Your task to perform on an android device: Open Reddit.com Image 0: 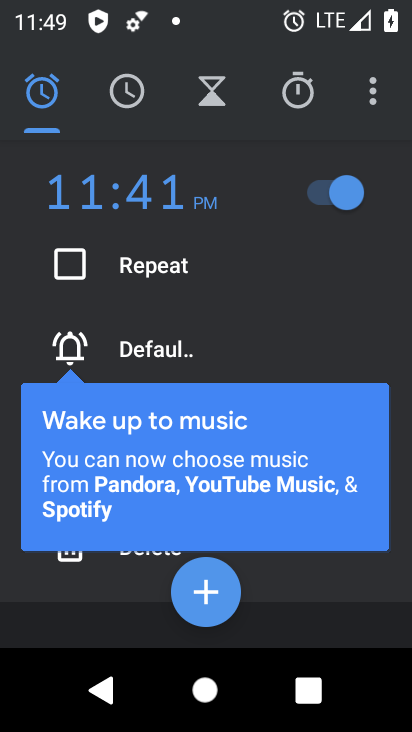
Step 0: press home button
Your task to perform on an android device: Open Reddit.com Image 1: 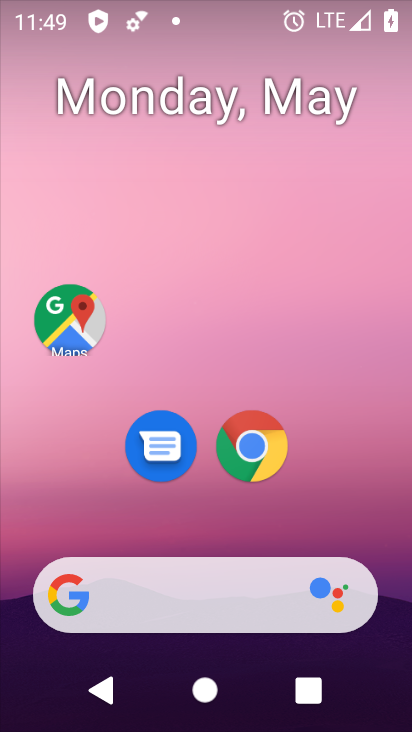
Step 1: click (258, 444)
Your task to perform on an android device: Open Reddit.com Image 2: 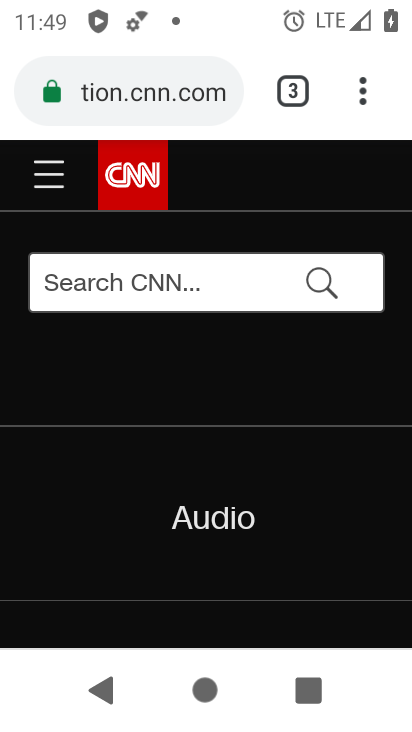
Step 2: click (366, 89)
Your task to perform on an android device: Open Reddit.com Image 3: 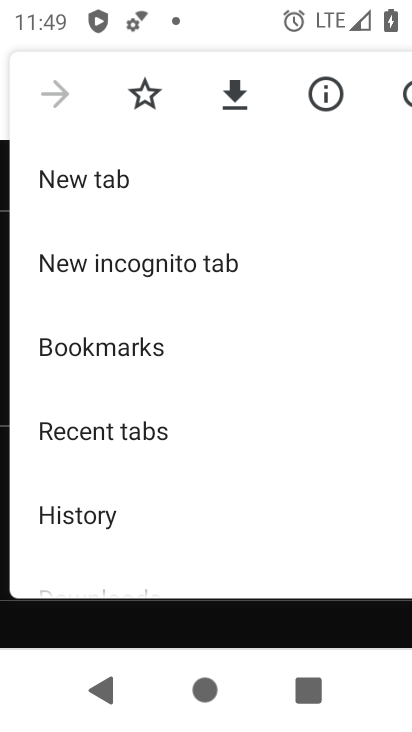
Step 3: click (104, 175)
Your task to perform on an android device: Open Reddit.com Image 4: 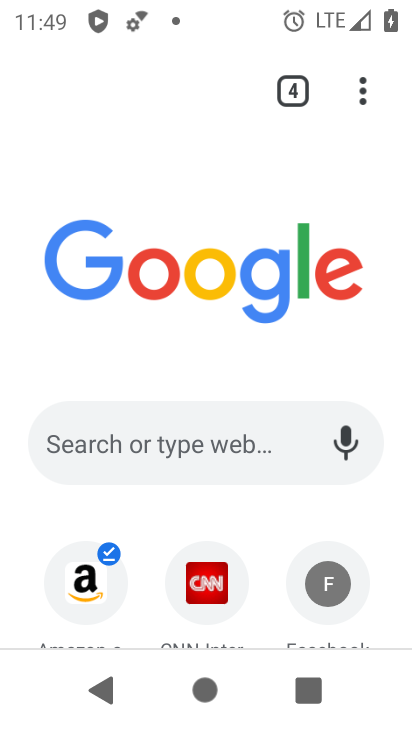
Step 4: click (180, 447)
Your task to perform on an android device: Open Reddit.com Image 5: 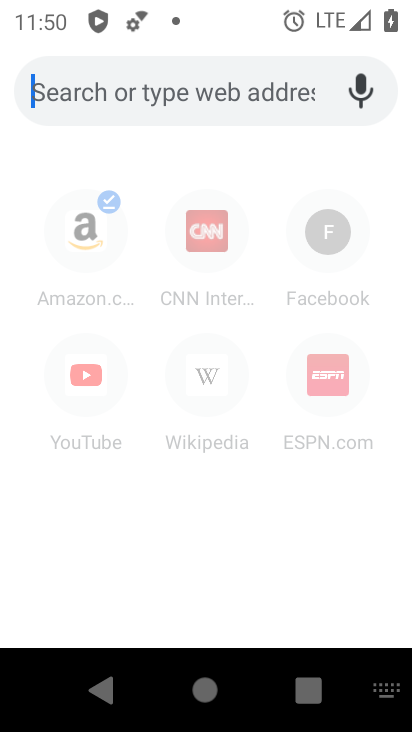
Step 5: type "reddit.com"
Your task to perform on an android device: Open Reddit.com Image 6: 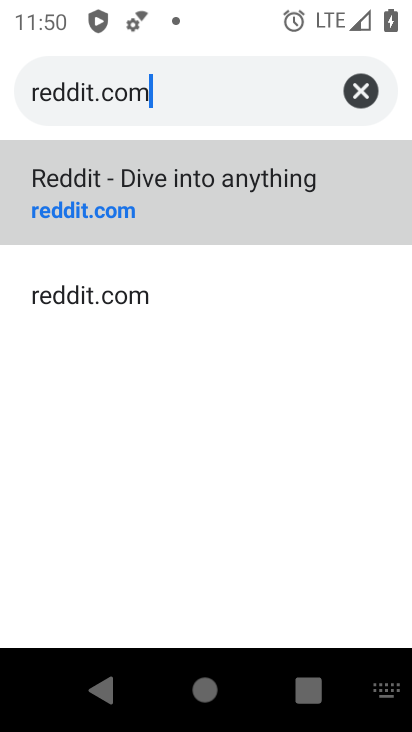
Step 6: click (89, 277)
Your task to perform on an android device: Open Reddit.com Image 7: 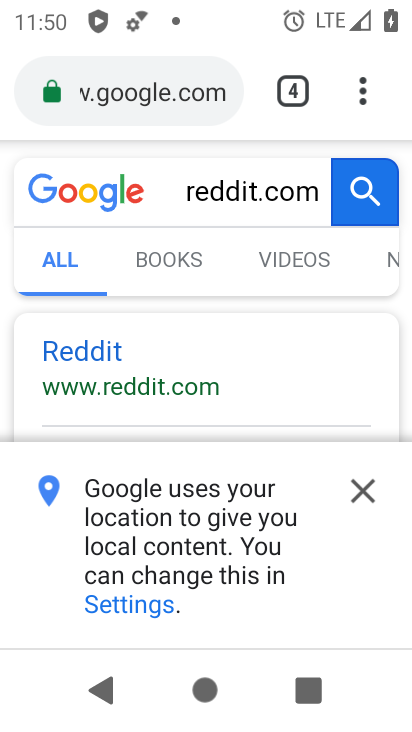
Step 7: task complete